Your task to perform on an android device: open wifi settings Image 0: 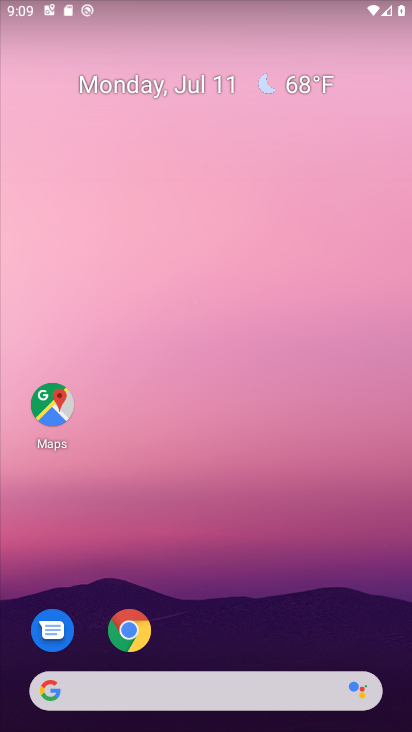
Step 0: drag from (227, 584) to (154, 23)
Your task to perform on an android device: open wifi settings Image 1: 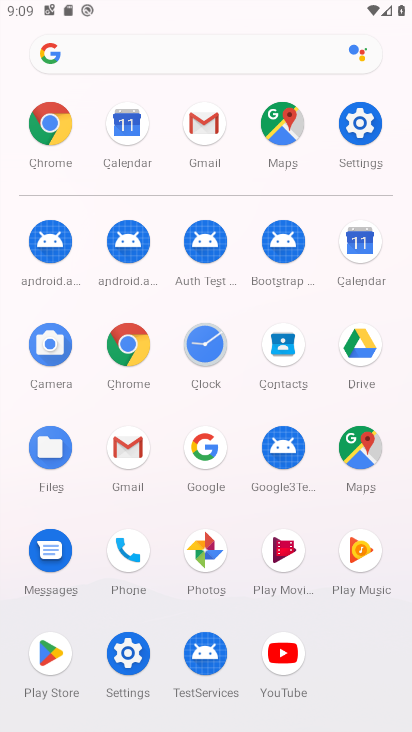
Step 1: click (137, 655)
Your task to perform on an android device: open wifi settings Image 2: 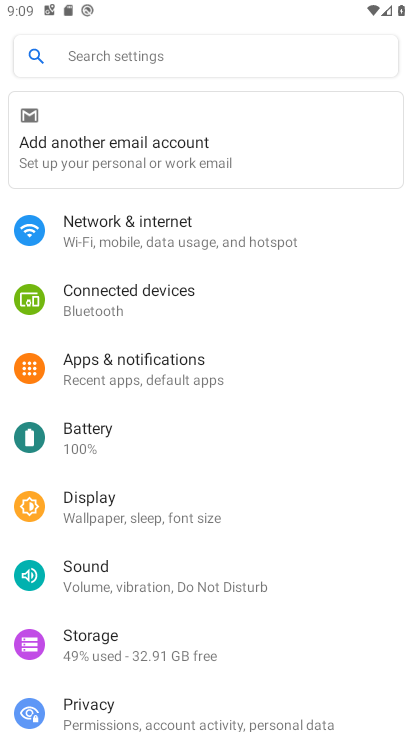
Step 2: click (161, 240)
Your task to perform on an android device: open wifi settings Image 3: 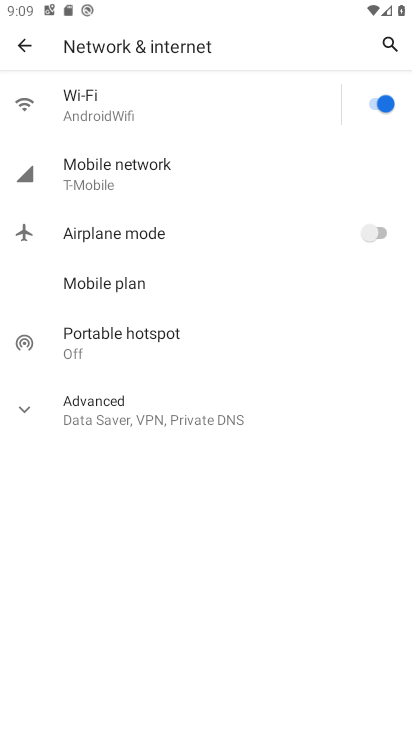
Step 3: click (125, 124)
Your task to perform on an android device: open wifi settings Image 4: 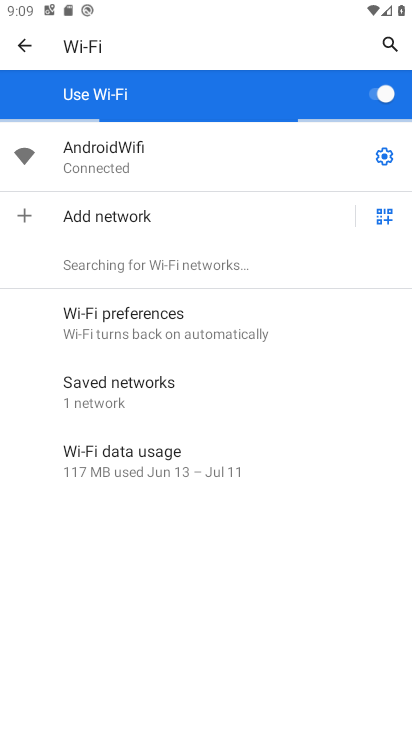
Step 4: task complete